Your task to perform on an android device: toggle pop-ups in chrome Image 0: 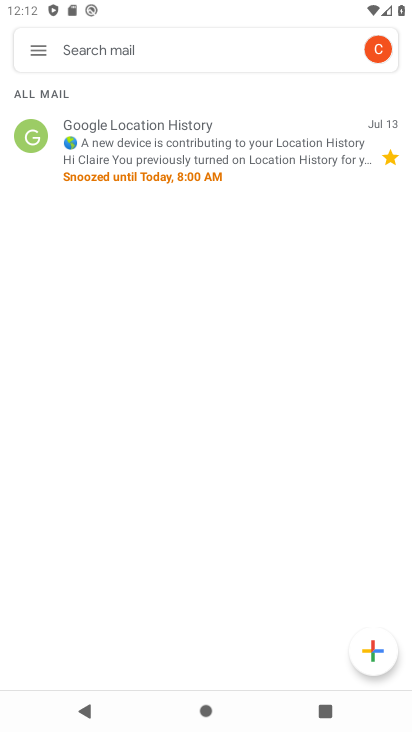
Step 0: press home button
Your task to perform on an android device: toggle pop-ups in chrome Image 1: 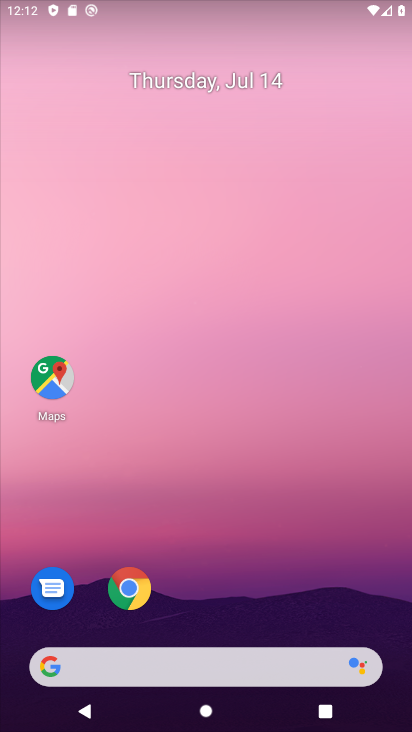
Step 1: drag from (212, 609) to (281, 145)
Your task to perform on an android device: toggle pop-ups in chrome Image 2: 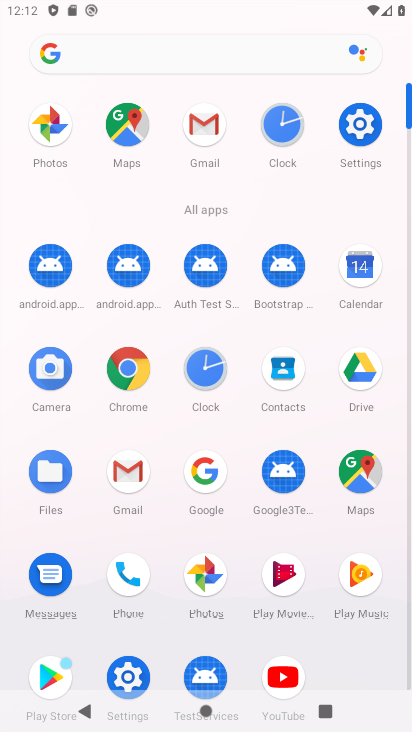
Step 2: click (130, 369)
Your task to perform on an android device: toggle pop-ups in chrome Image 3: 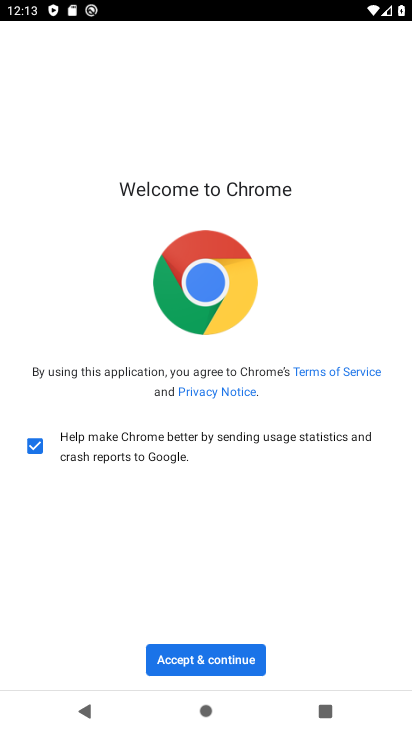
Step 3: click (196, 668)
Your task to perform on an android device: toggle pop-ups in chrome Image 4: 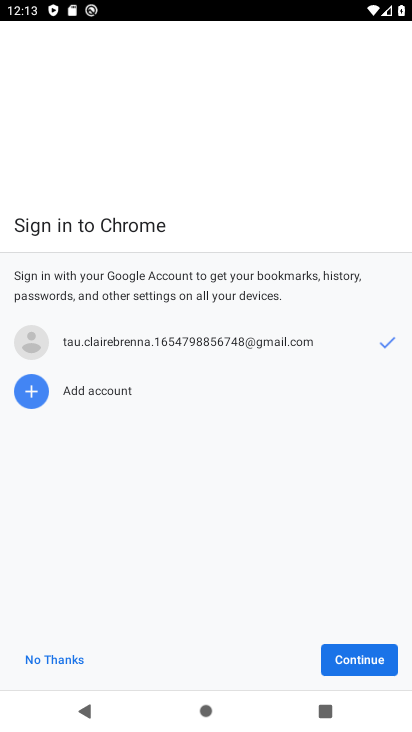
Step 4: click (371, 656)
Your task to perform on an android device: toggle pop-ups in chrome Image 5: 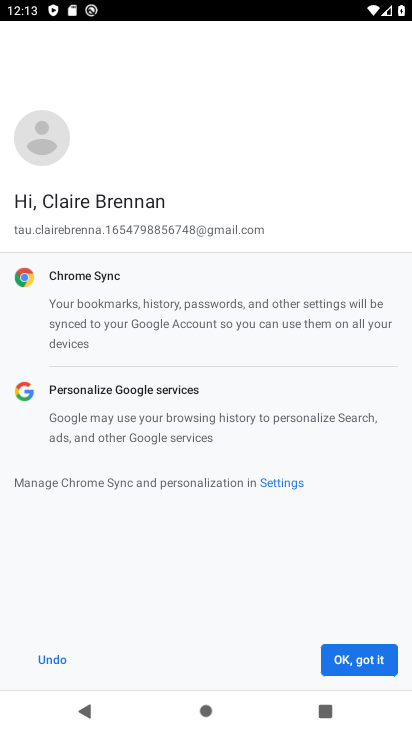
Step 5: click (371, 656)
Your task to perform on an android device: toggle pop-ups in chrome Image 6: 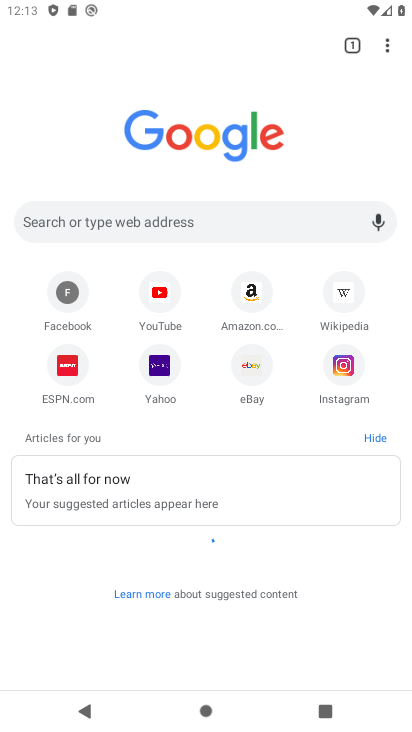
Step 6: click (379, 48)
Your task to perform on an android device: toggle pop-ups in chrome Image 7: 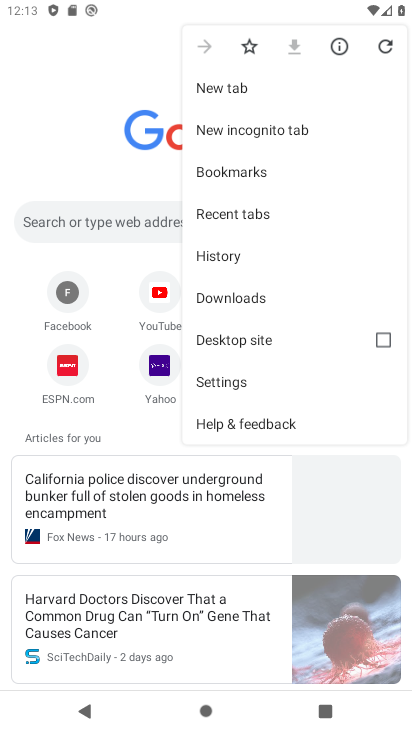
Step 7: click (234, 371)
Your task to perform on an android device: toggle pop-ups in chrome Image 8: 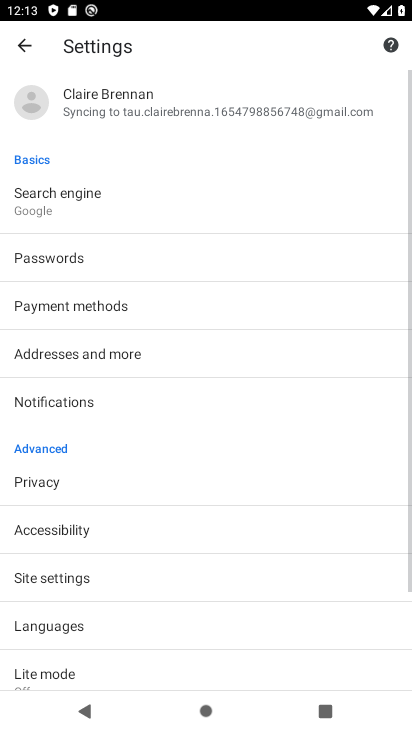
Step 8: click (62, 581)
Your task to perform on an android device: toggle pop-ups in chrome Image 9: 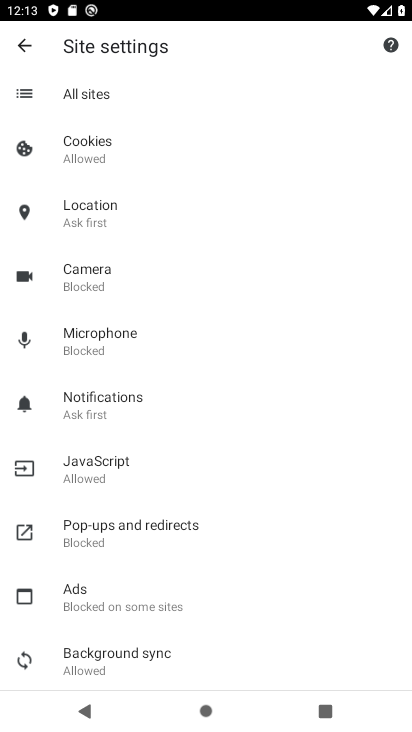
Step 9: click (125, 537)
Your task to perform on an android device: toggle pop-ups in chrome Image 10: 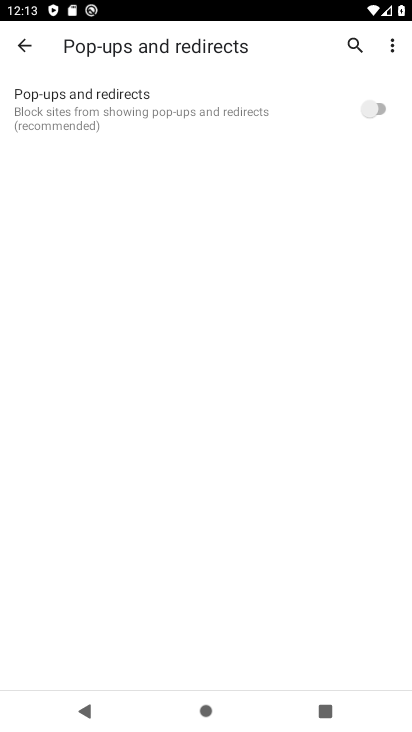
Step 10: click (371, 110)
Your task to perform on an android device: toggle pop-ups in chrome Image 11: 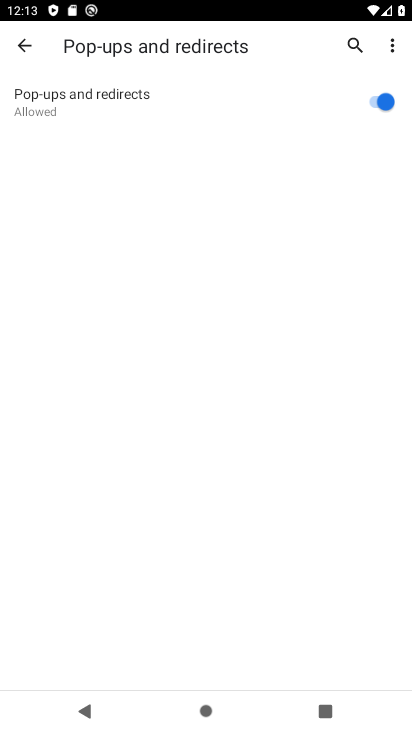
Step 11: task complete